Your task to perform on an android device: Go to Amazon Image 0: 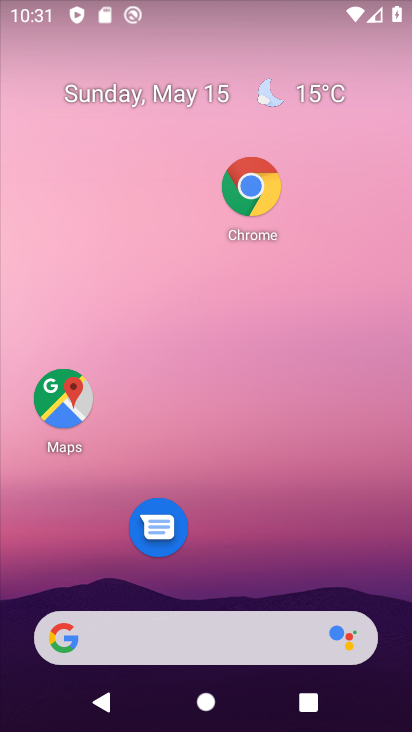
Step 0: click (266, 92)
Your task to perform on an android device: Go to Amazon Image 1: 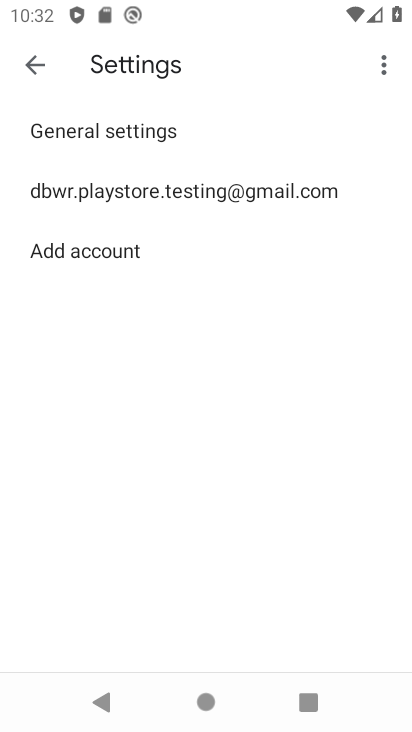
Step 1: press home button
Your task to perform on an android device: Go to Amazon Image 2: 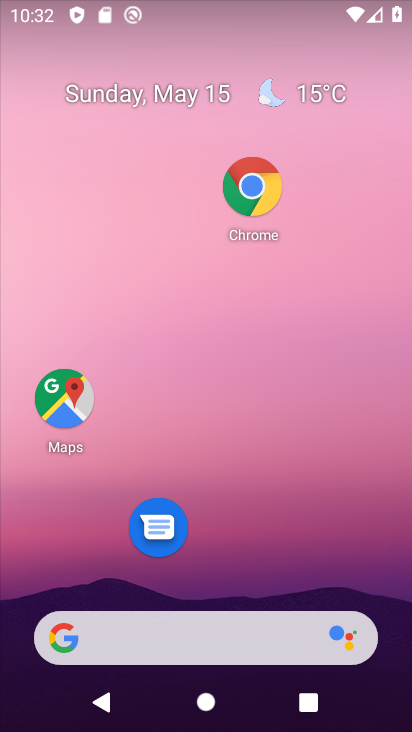
Step 2: click (254, 182)
Your task to perform on an android device: Go to Amazon Image 3: 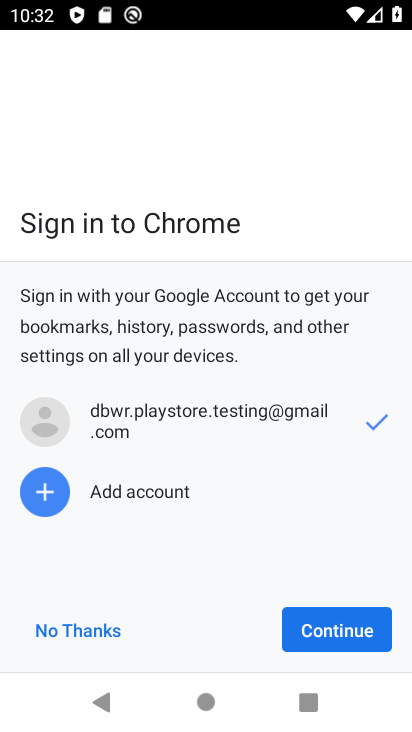
Step 3: click (342, 645)
Your task to perform on an android device: Go to Amazon Image 4: 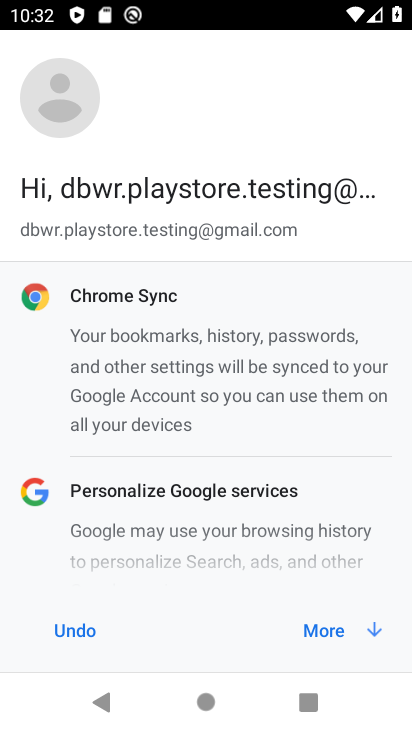
Step 4: click (331, 633)
Your task to perform on an android device: Go to Amazon Image 5: 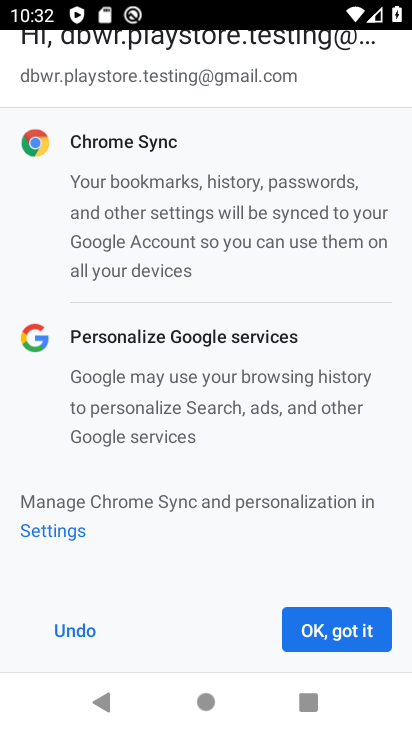
Step 5: click (331, 633)
Your task to perform on an android device: Go to Amazon Image 6: 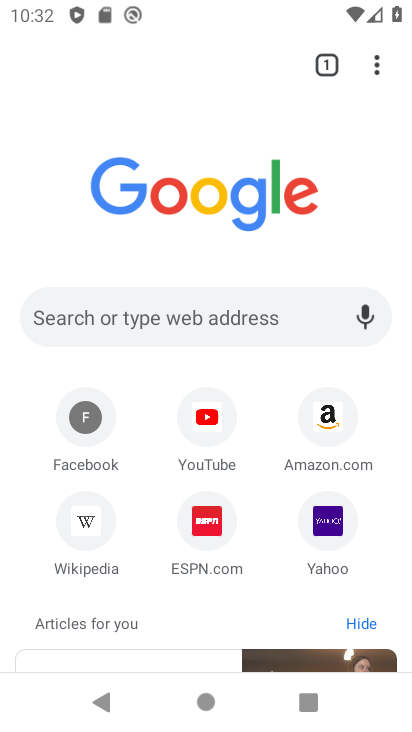
Step 6: click (331, 436)
Your task to perform on an android device: Go to Amazon Image 7: 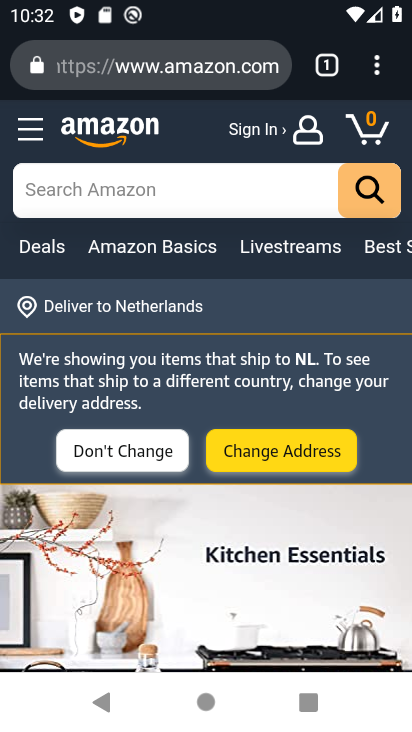
Step 7: task complete